Your task to perform on an android device: Open internet settings Image 0: 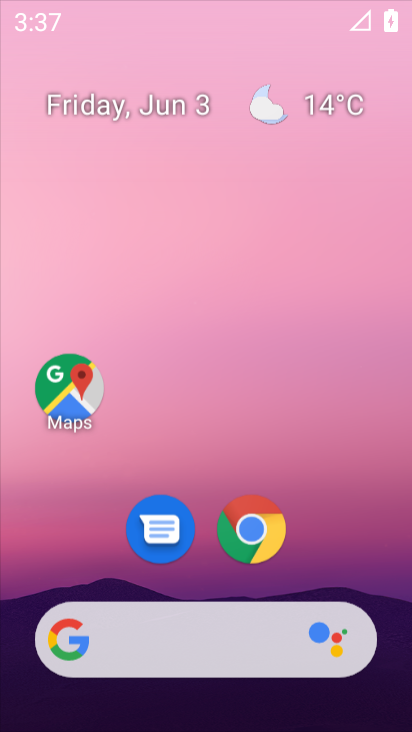
Step 0: drag from (377, 375) to (409, 172)
Your task to perform on an android device: Open internet settings Image 1: 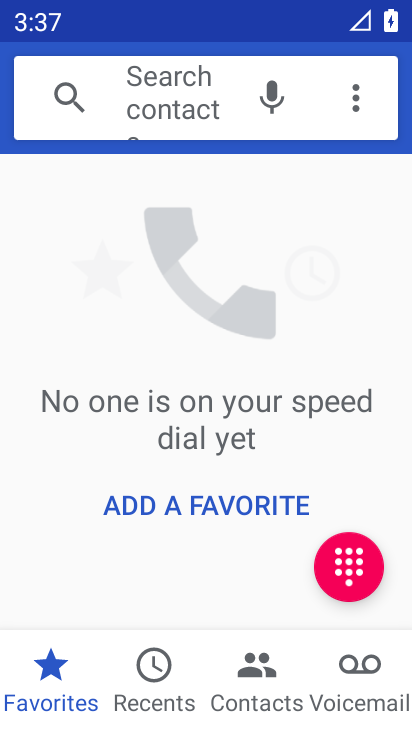
Step 1: press home button
Your task to perform on an android device: Open internet settings Image 2: 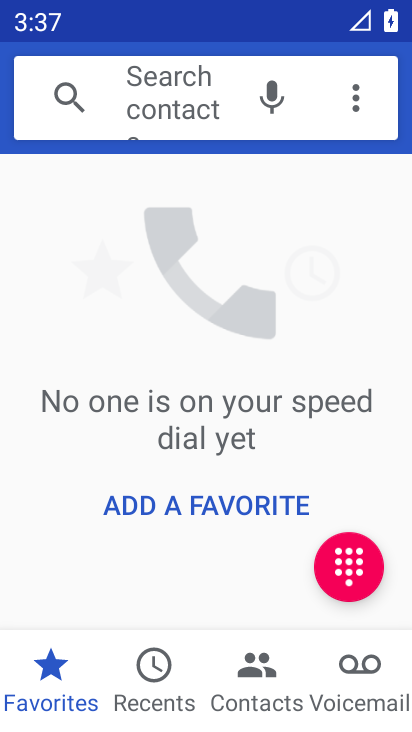
Step 2: drag from (409, 172) to (400, 512)
Your task to perform on an android device: Open internet settings Image 3: 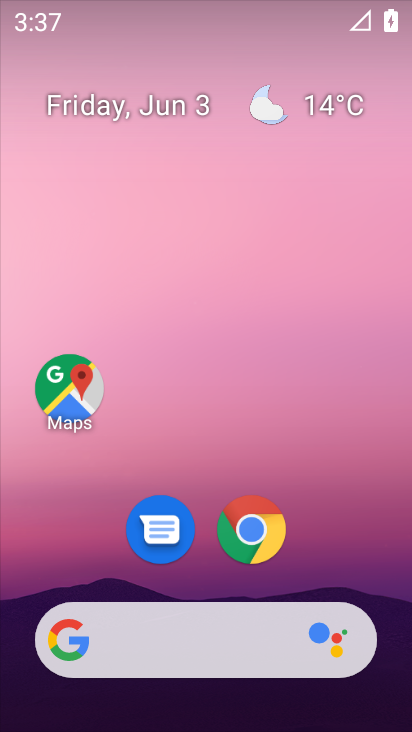
Step 3: drag from (361, 580) to (389, 106)
Your task to perform on an android device: Open internet settings Image 4: 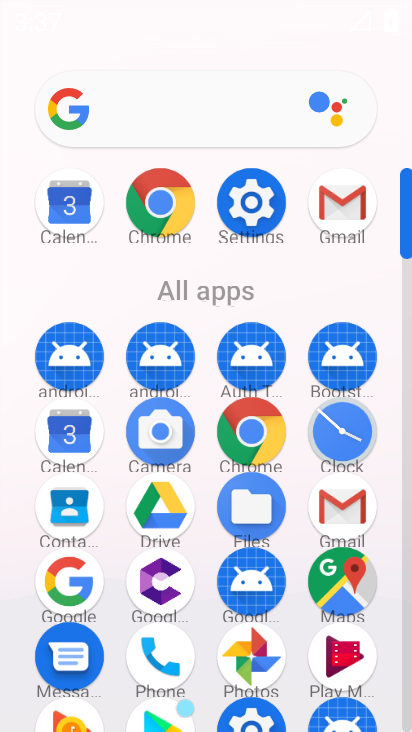
Step 4: click (288, 215)
Your task to perform on an android device: Open internet settings Image 5: 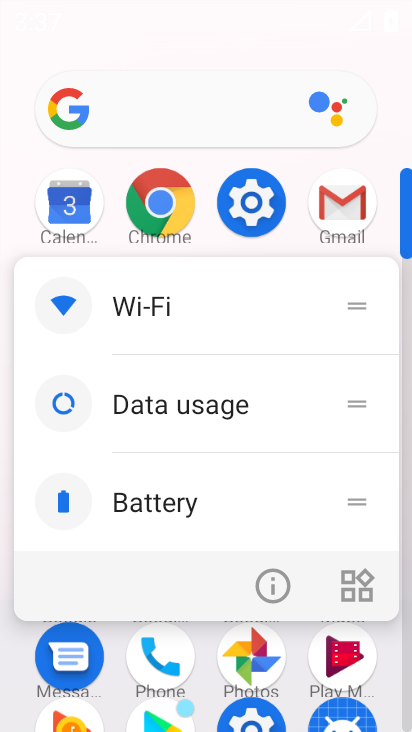
Step 5: click (275, 213)
Your task to perform on an android device: Open internet settings Image 6: 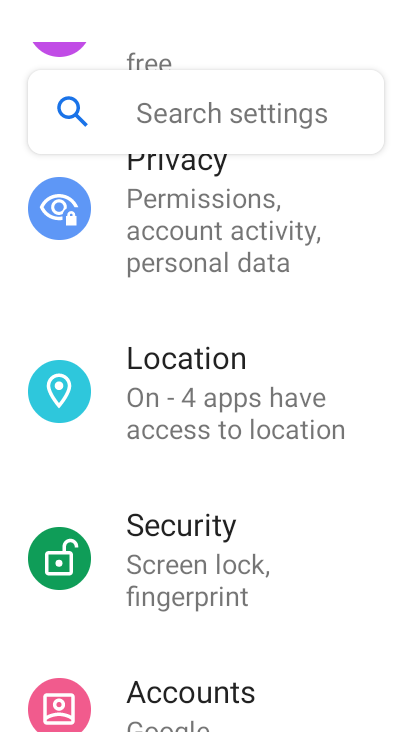
Step 6: drag from (239, 209) to (203, 655)
Your task to perform on an android device: Open internet settings Image 7: 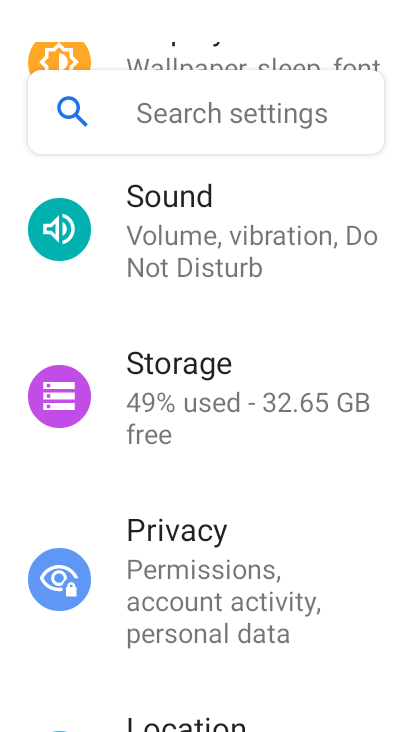
Step 7: drag from (274, 250) to (262, 618)
Your task to perform on an android device: Open internet settings Image 8: 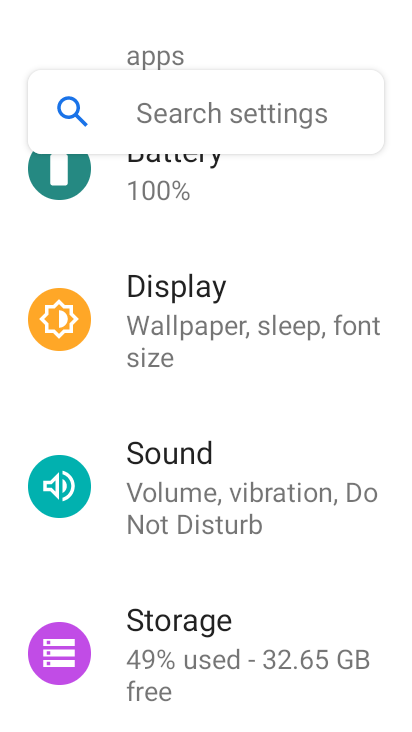
Step 8: drag from (268, 243) to (239, 687)
Your task to perform on an android device: Open internet settings Image 9: 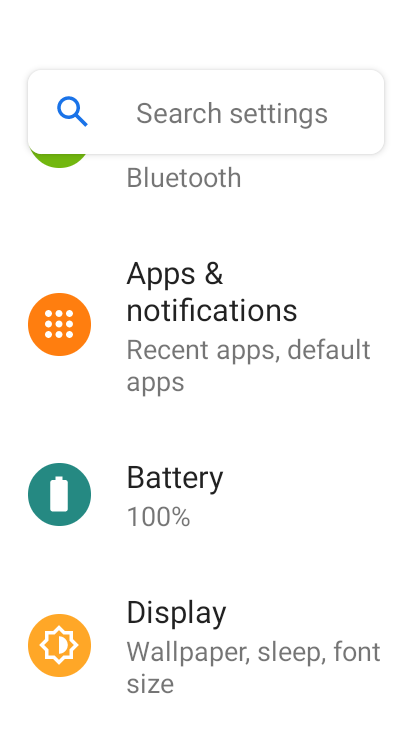
Step 9: drag from (286, 310) to (236, 691)
Your task to perform on an android device: Open internet settings Image 10: 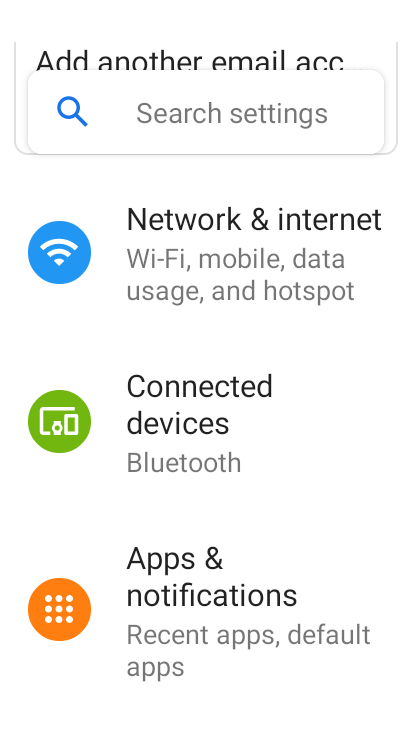
Step 10: drag from (299, 282) to (291, 589)
Your task to perform on an android device: Open internet settings Image 11: 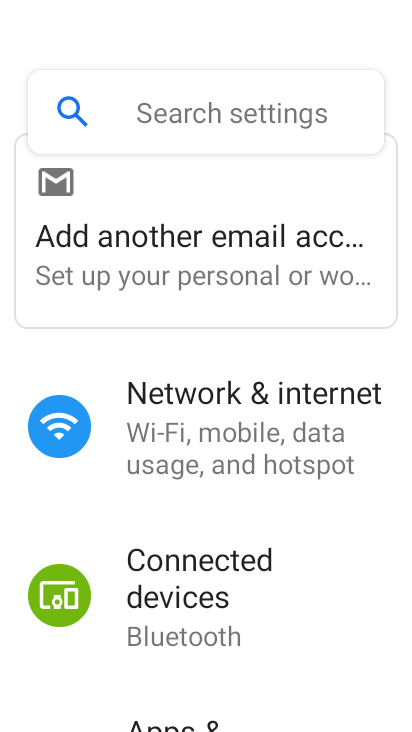
Step 11: click (297, 460)
Your task to perform on an android device: Open internet settings Image 12: 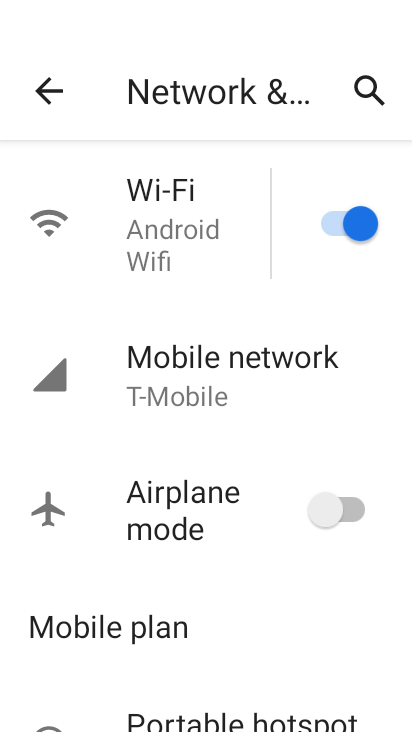
Step 12: task complete